Your task to perform on an android device: open wifi settings Image 0: 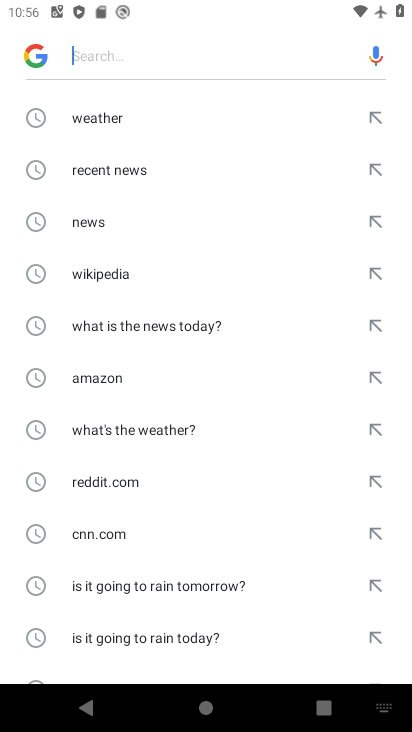
Step 0: press home button
Your task to perform on an android device: open wifi settings Image 1: 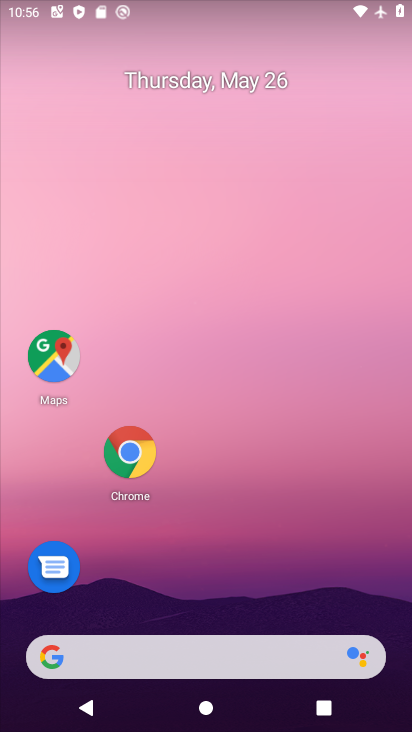
Step 1: drag from (149, 651) to (320, 44)
Your task to perform on an android device: open wifi settings Image 2: 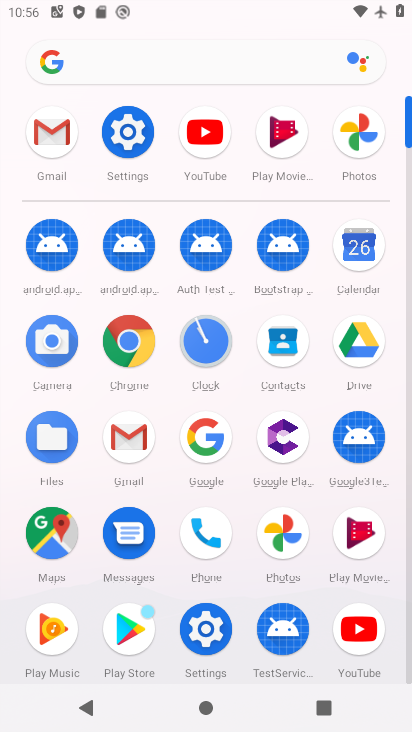
Step 2: click (131, 135)
Your task to perform on an android device: open wifi settings Image 3: 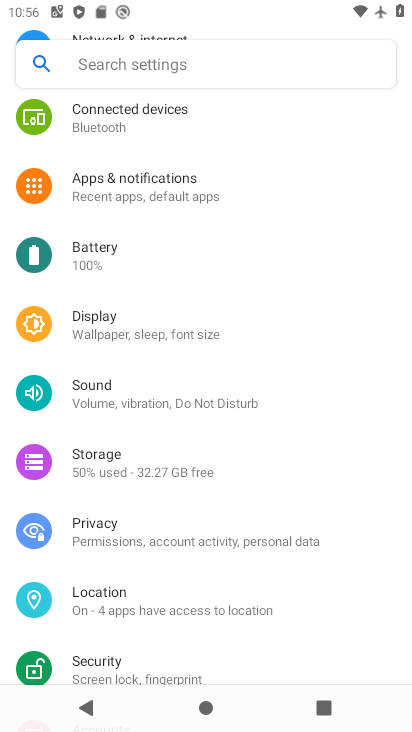
Step 3: drag from (308, 136) to (198, 532)
Your task to perform on an android device: open wifi settings Image 4: 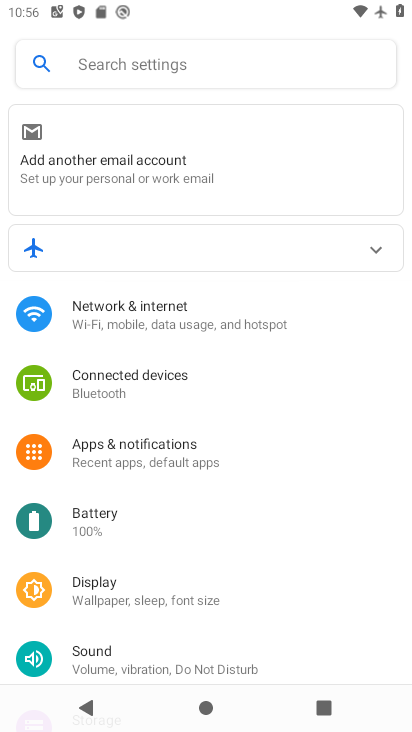
Step 4: click (174, 318)
Your task to perform on an android device: open wifi settings Image 5: 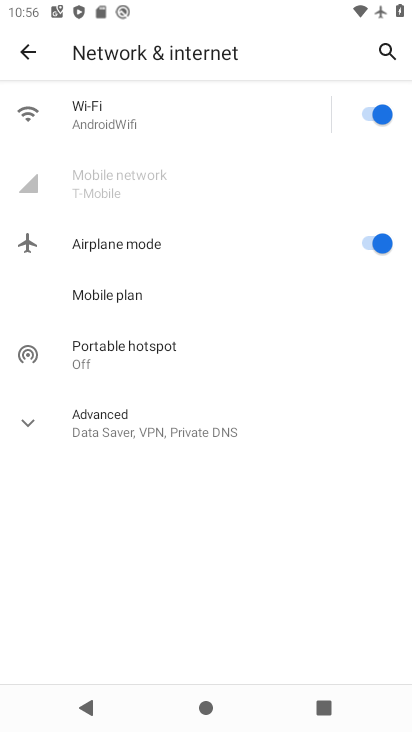
Step 5: click (99, 110)
Your task to perform on an android device: open wifi settings Image 6: 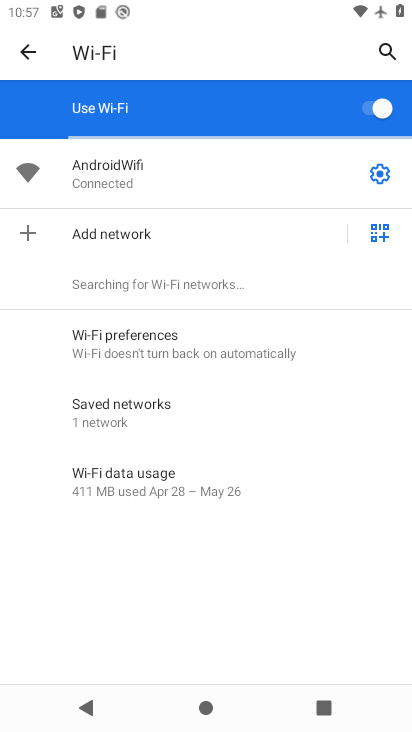
Step 6: task complete